Your task to perform on an android device: What's on Reddit this week Image 0: 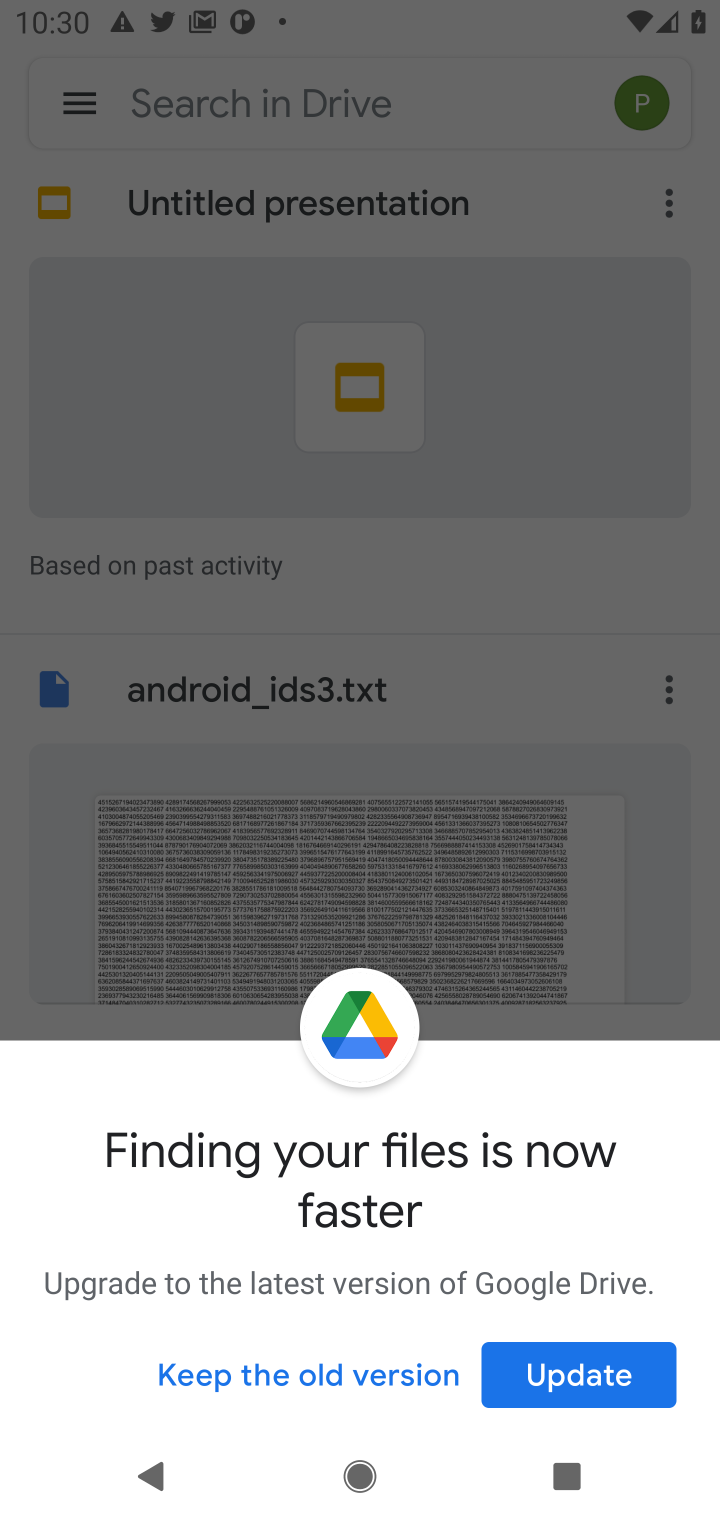
Step 0: press home button
Your task to perform on an android device: What's on Reddit this week Image 1: 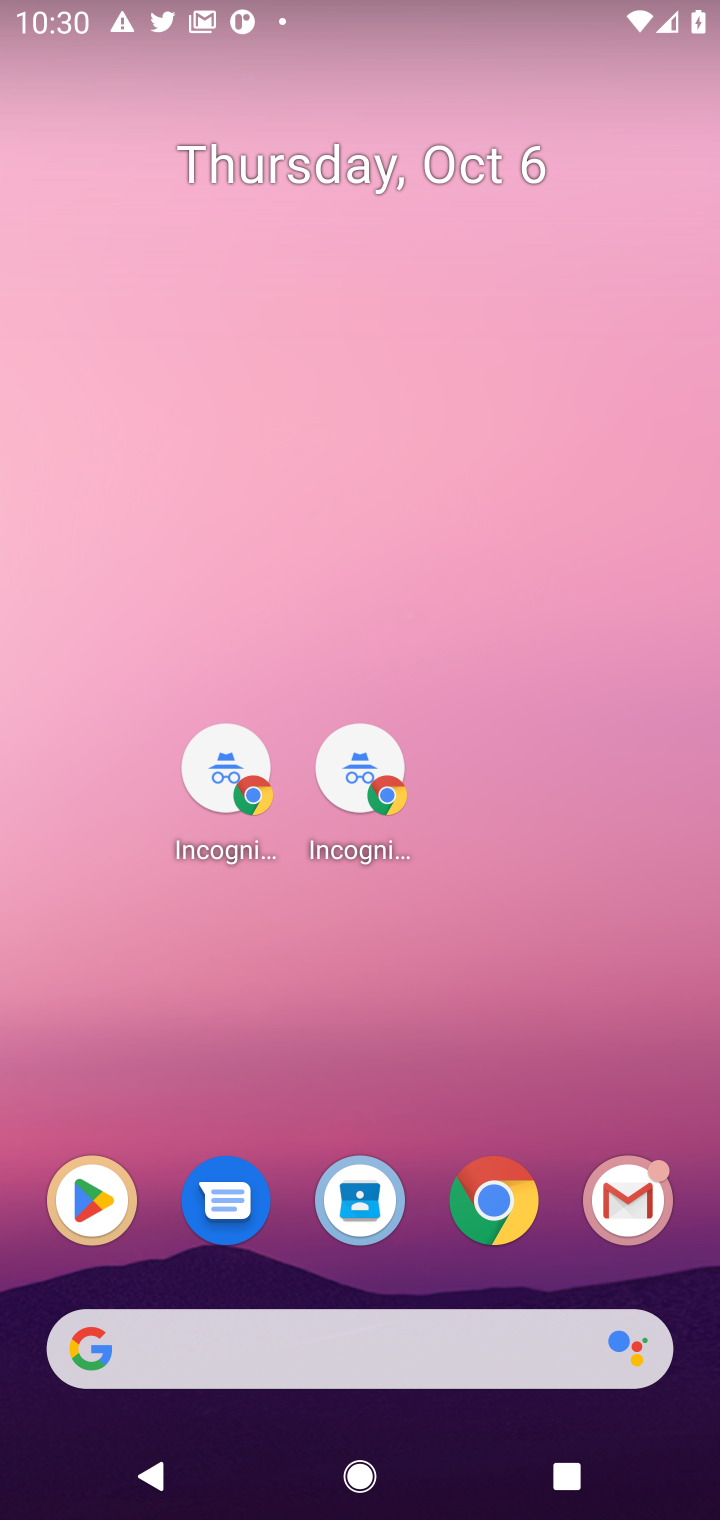
Step 1: click (509, 1194)
Your task to perform on an android device: What's on Reddit this week Image 2: 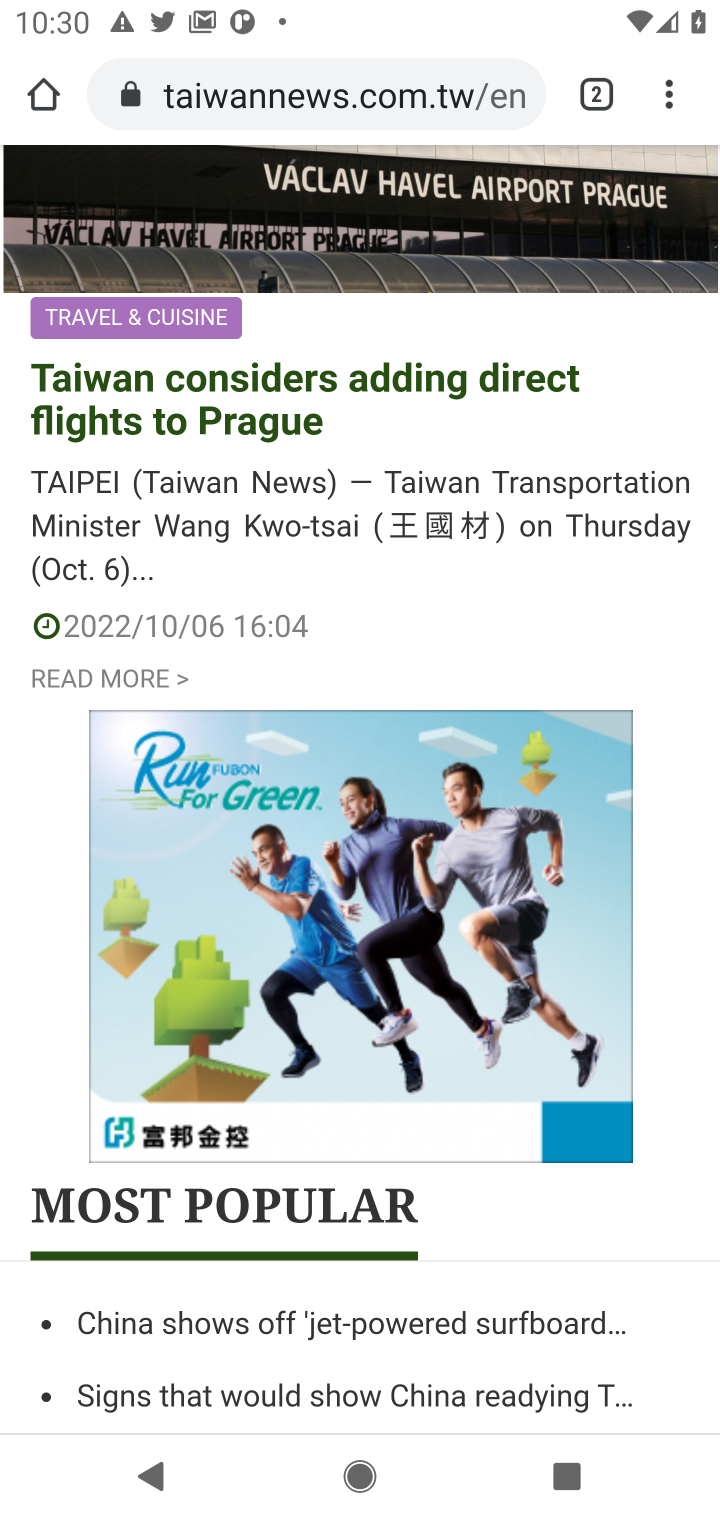
Step 2: click (325, 85)
Your task to perform on an android device: What's on Reddit this week Image 3: 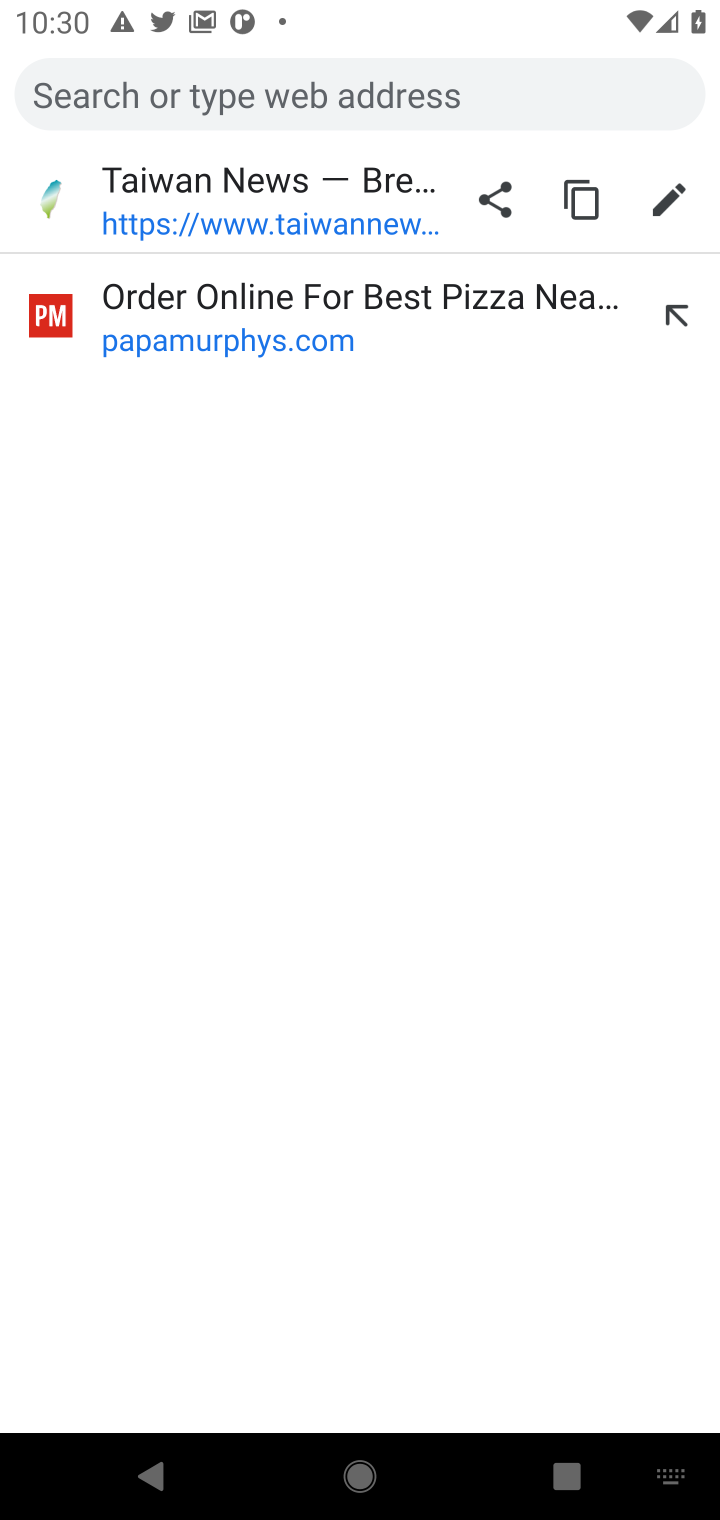
Step 3: type "whats on reddit this week"
Your task to perform on an android device: What's on Reddit this week Image 4: 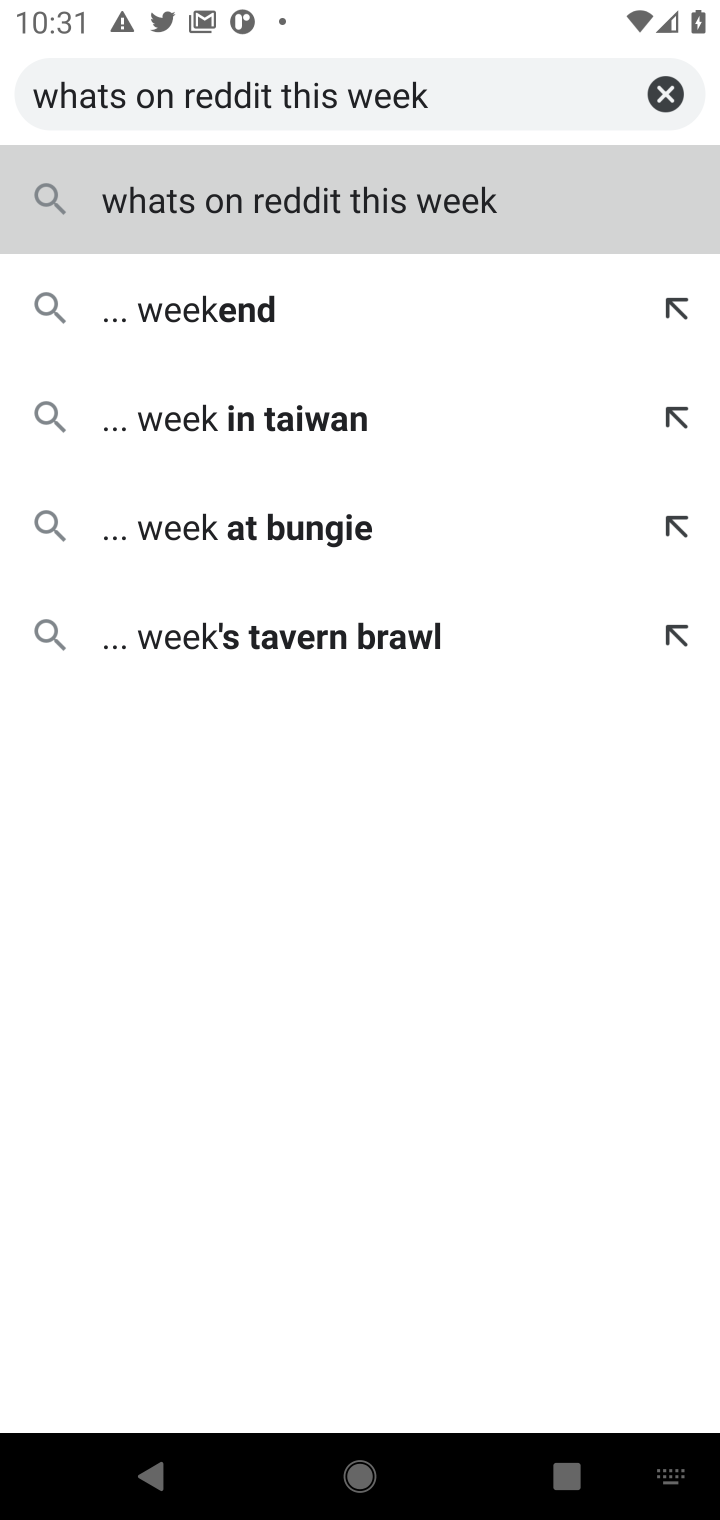
Step 4: type "whats on "
Your task to perform on an android device: What's on Reddit this week Image 5: 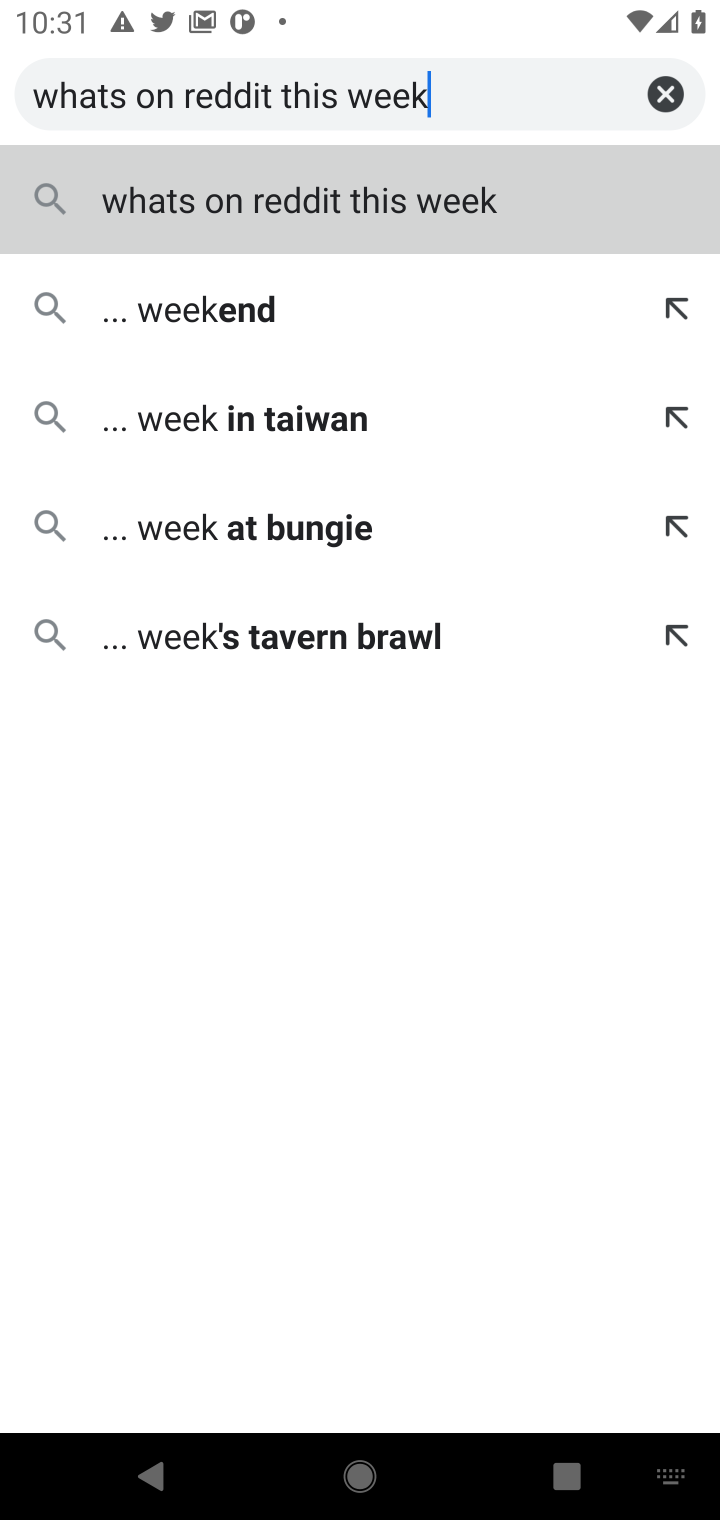
Step 5: click (332, 207)
Your task to perform on an android device: What's on Reddit this week Image 6: 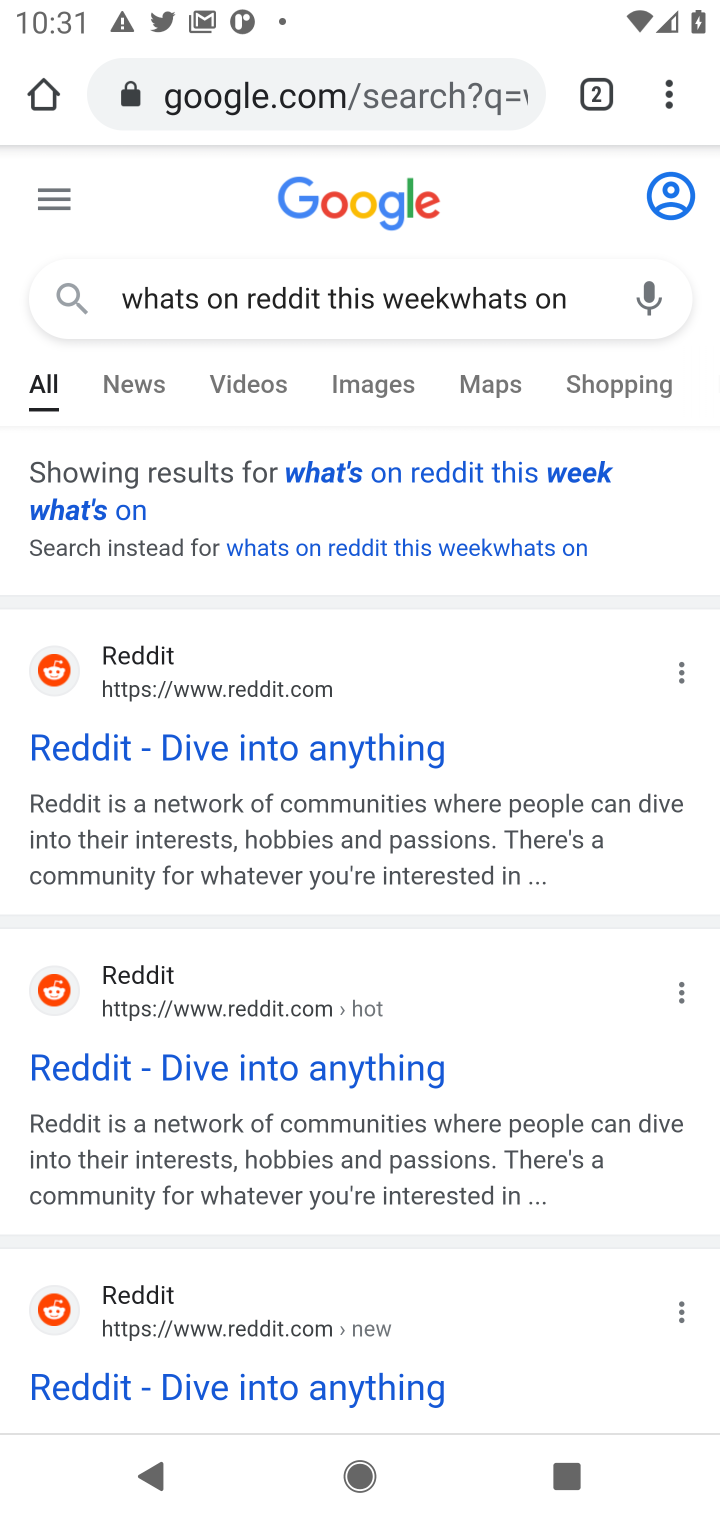
Step 6: click (279, 745)
Your task to perform on an android device: What's on Reddit this week Image 7: 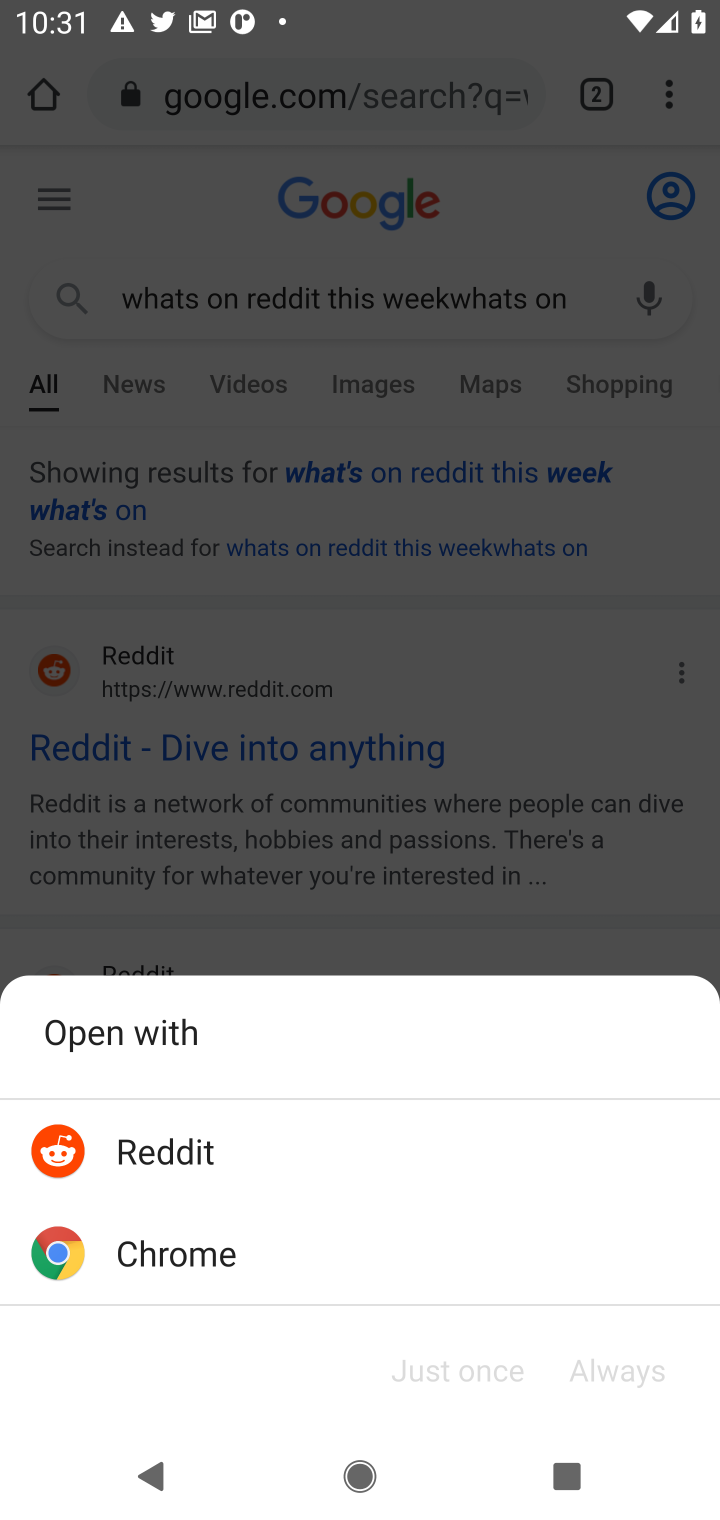
Step 7: drag from (222, 870) to (278, 528)
Your task to perform on an android device: What's on Reddit this week Image 8: 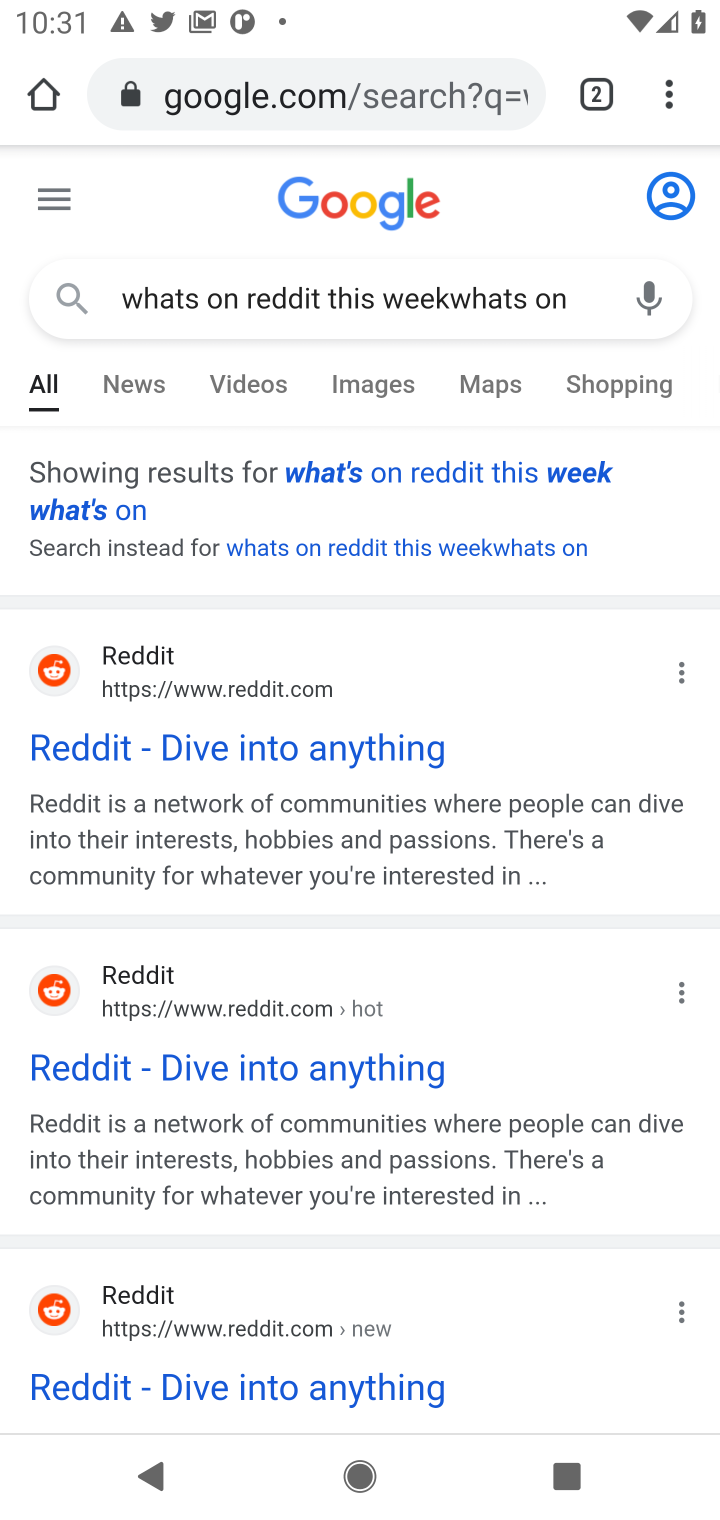
Step 8: click (170, 1061)
Your task to perform on an android device: What's on Reddit this week Image 9: 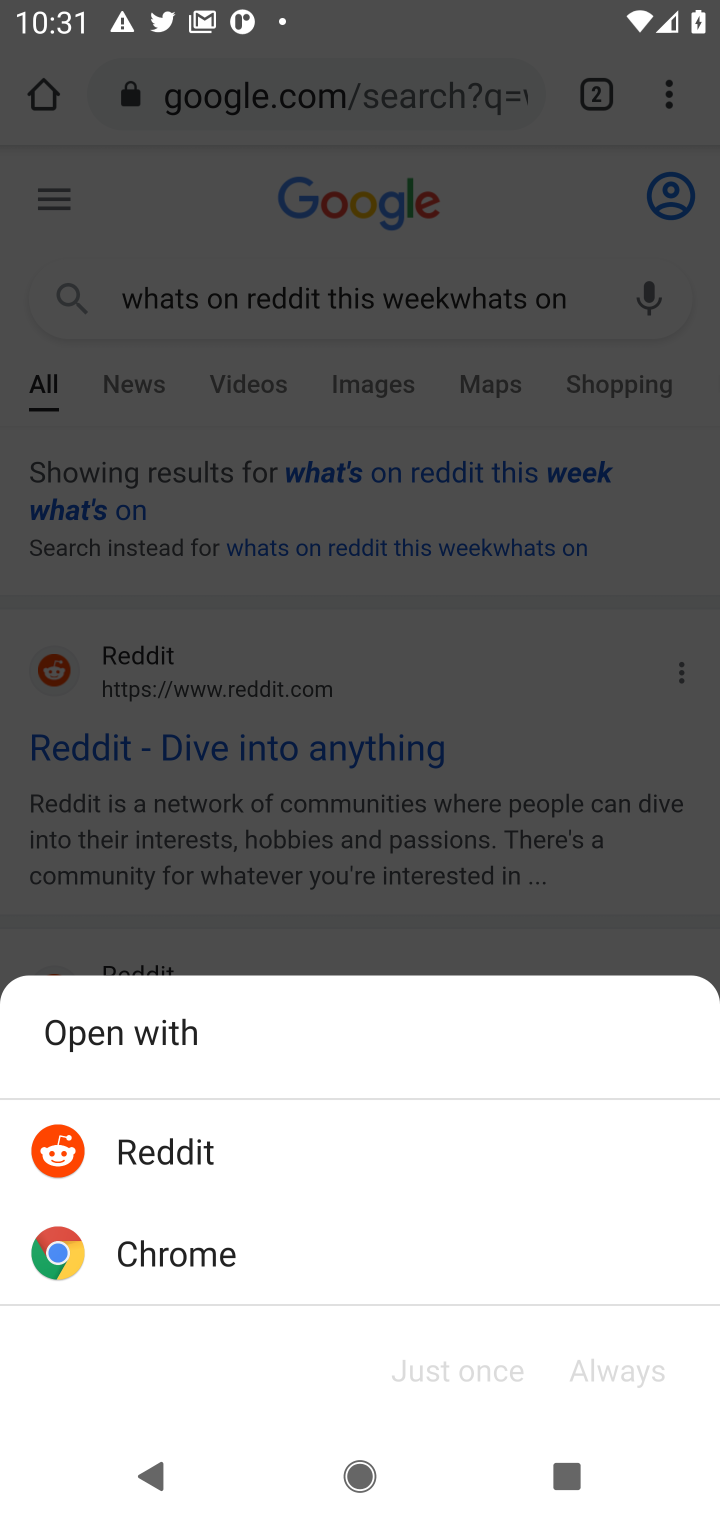
Step 9: click (145, 1147)
Your task to perform on an android device: What's on Reddit this week Image 10: 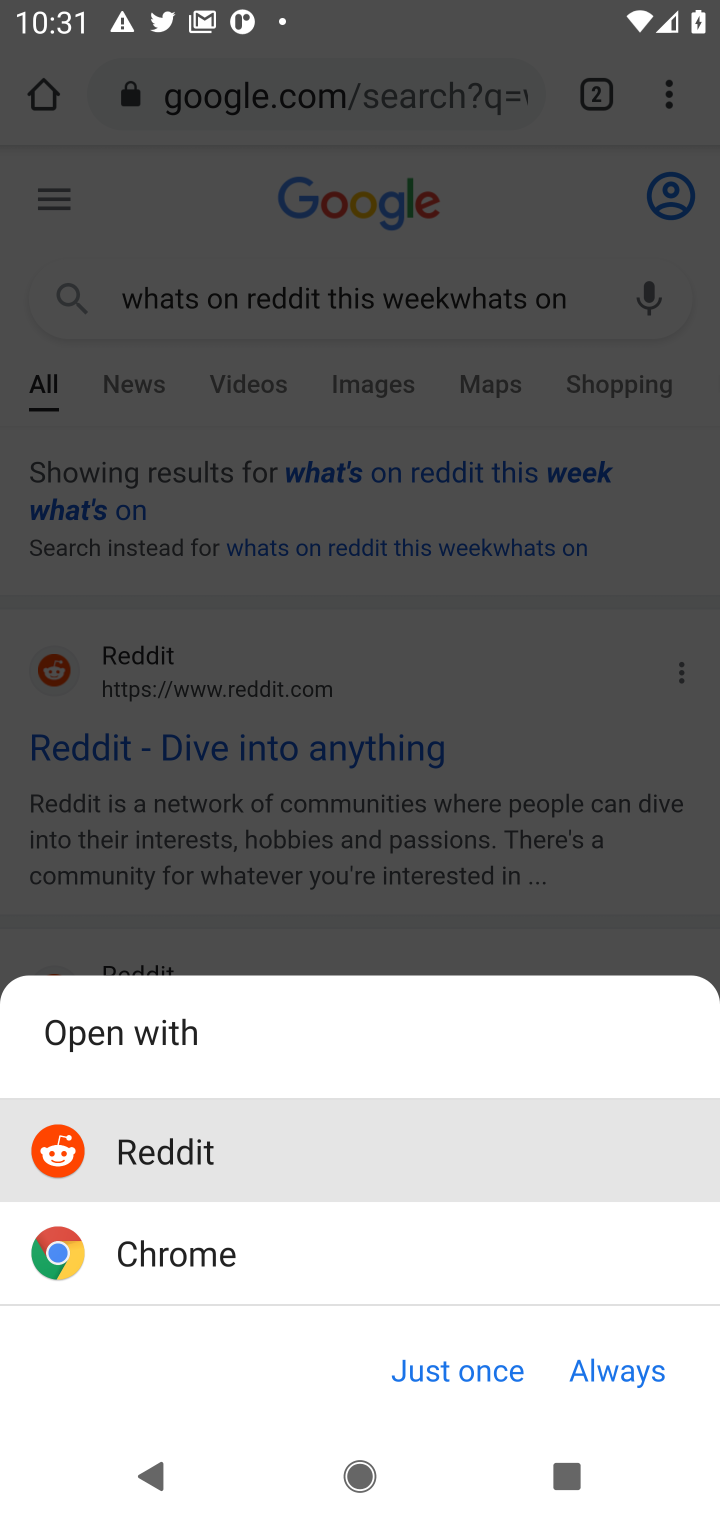
Step 10: click (617, 1376)
Your task to perform on an android device: What's on Reddit this week Image 11: 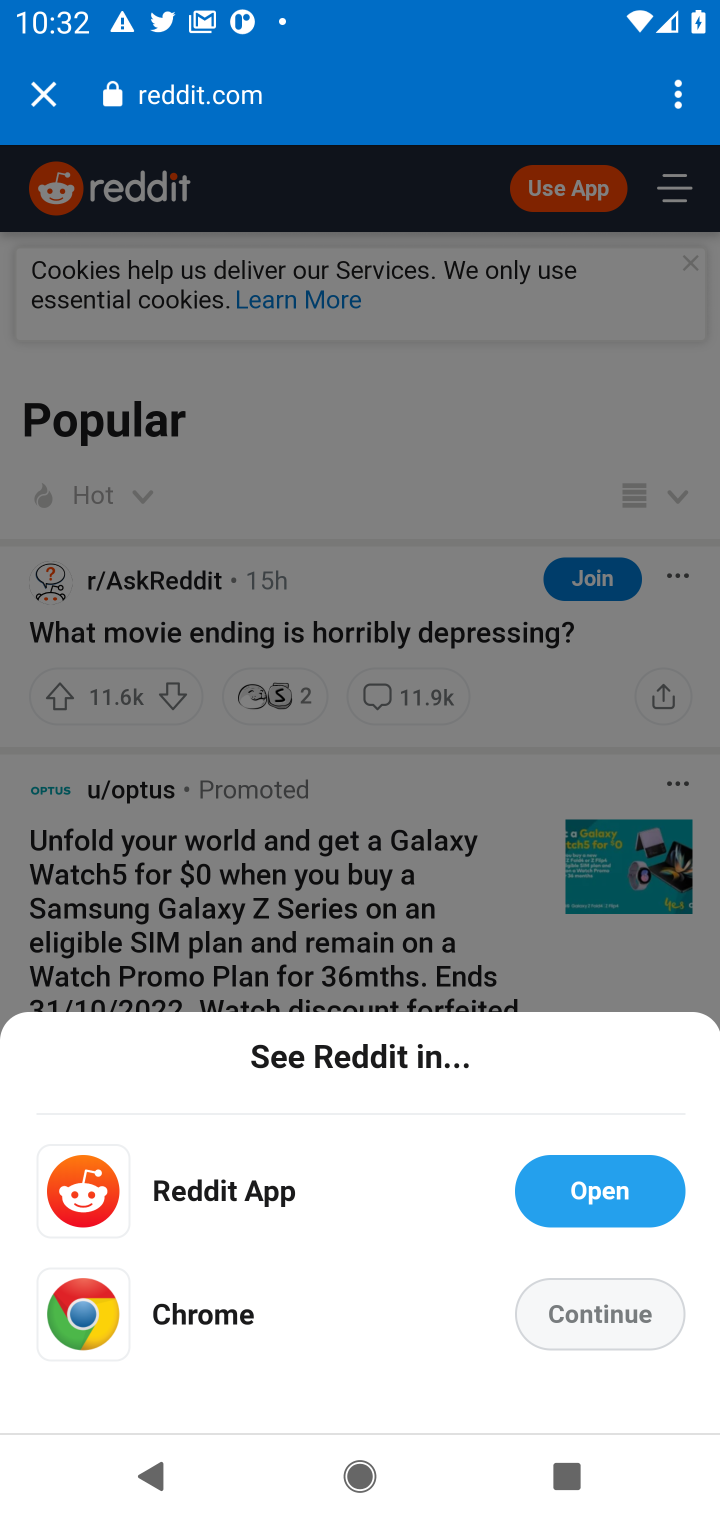
Step 11: drag from (275, 793) to (381, 423)
Your task to perform on an android device: What's on Reddit this week Image 12: 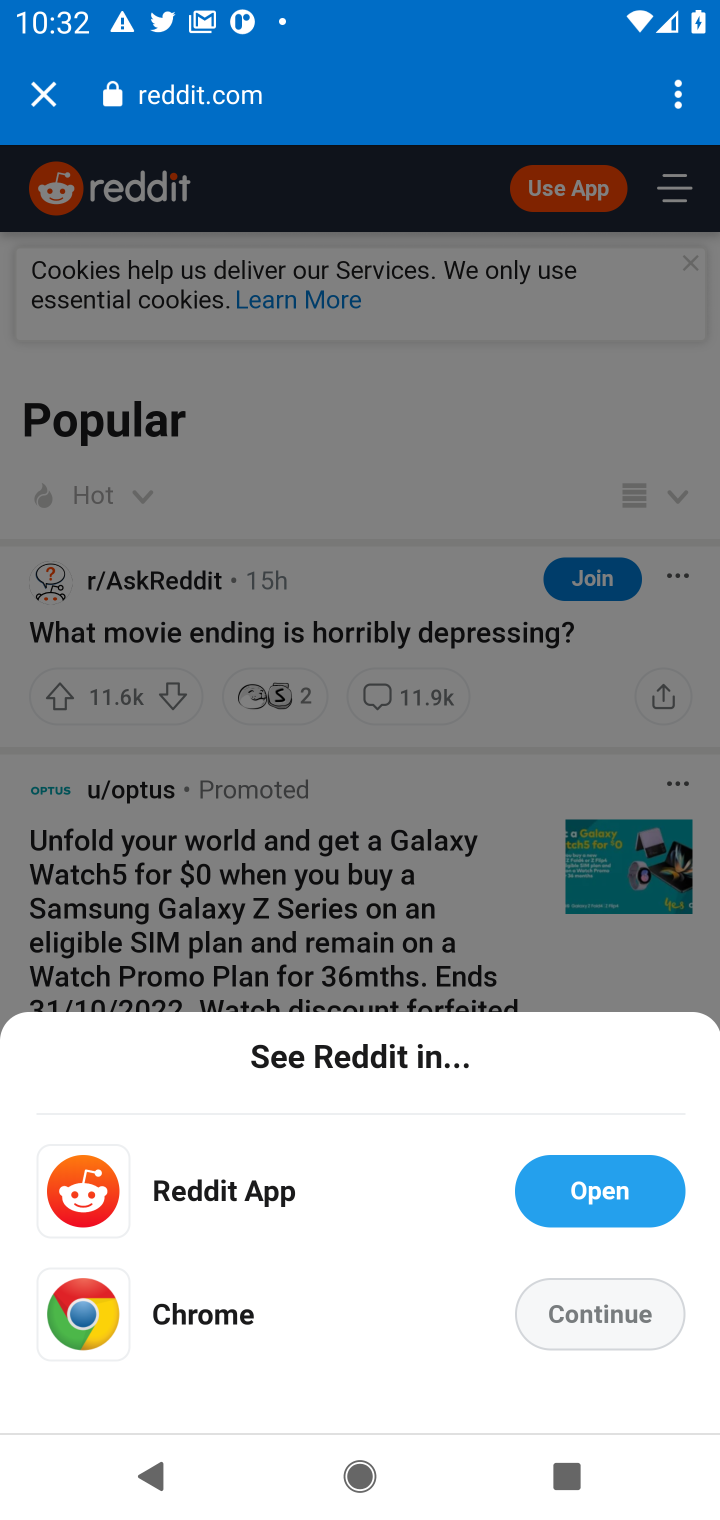
Step 12: drag from (160, 879) to (226, 525)
Your task to perform on an android device: What's on Reddit this week Image 13: 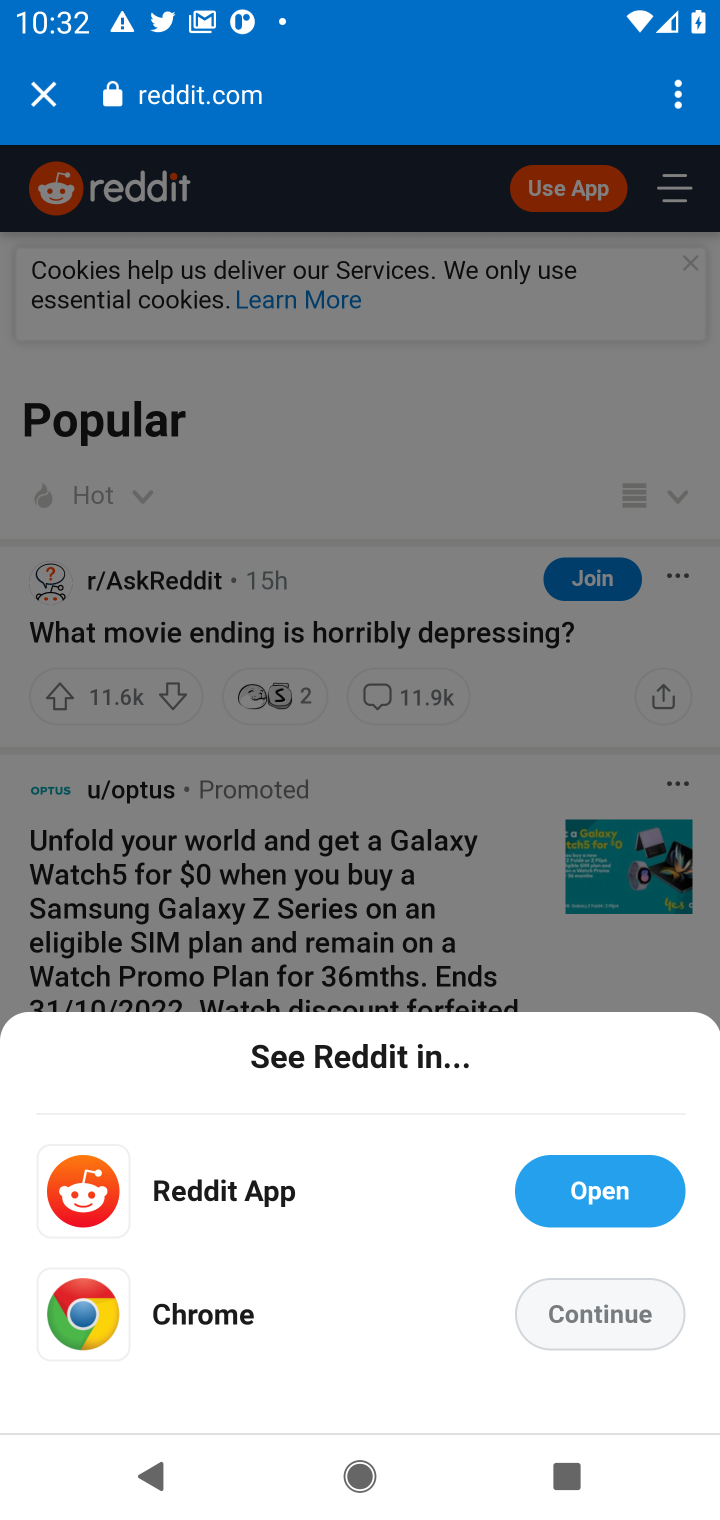
Step 13: drag from (185, 915) to (326, 564)
Your task to perform on an android device: What's on Reddit this week Image 14: 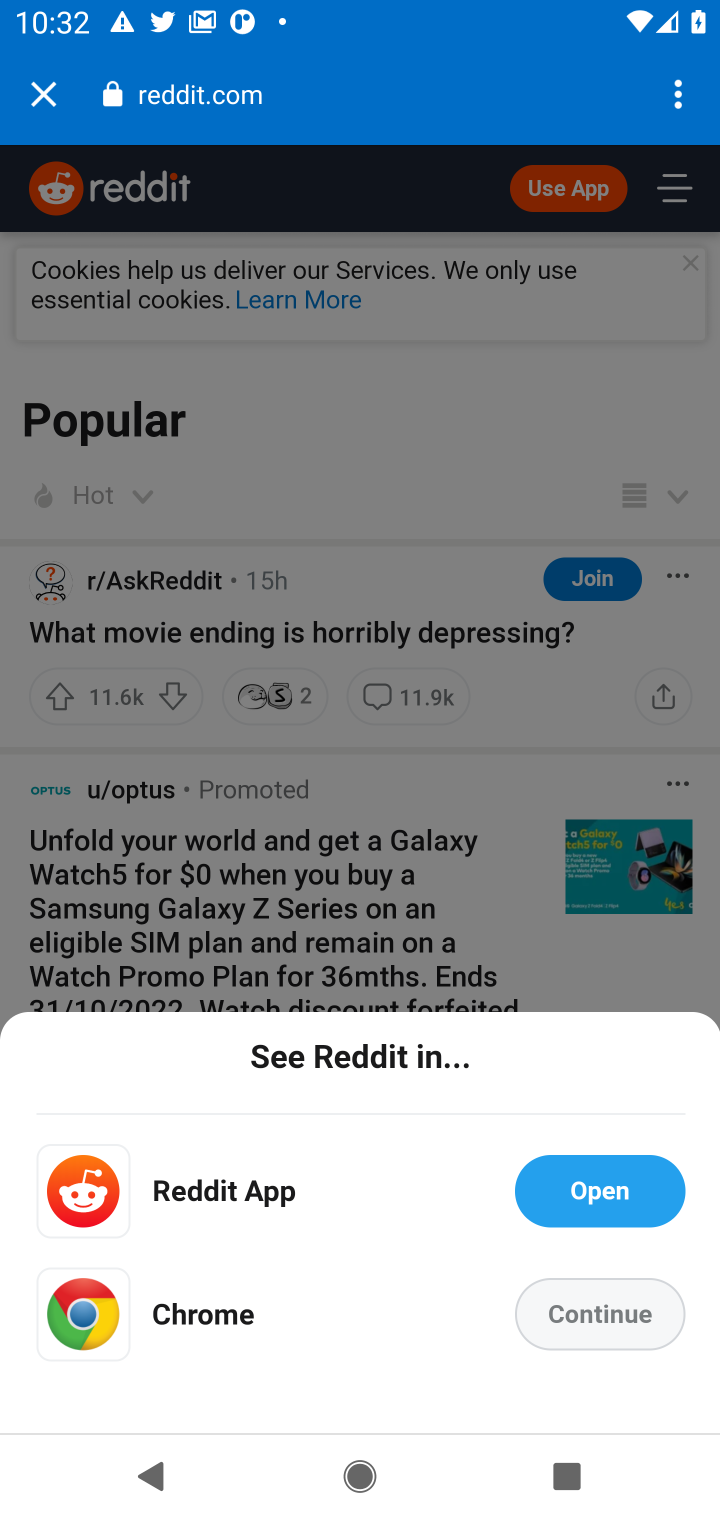
Step 14: drag from (300, 910) to (279, 573)
Your task to perform on an android device: What's on Reddit this week Image 15: 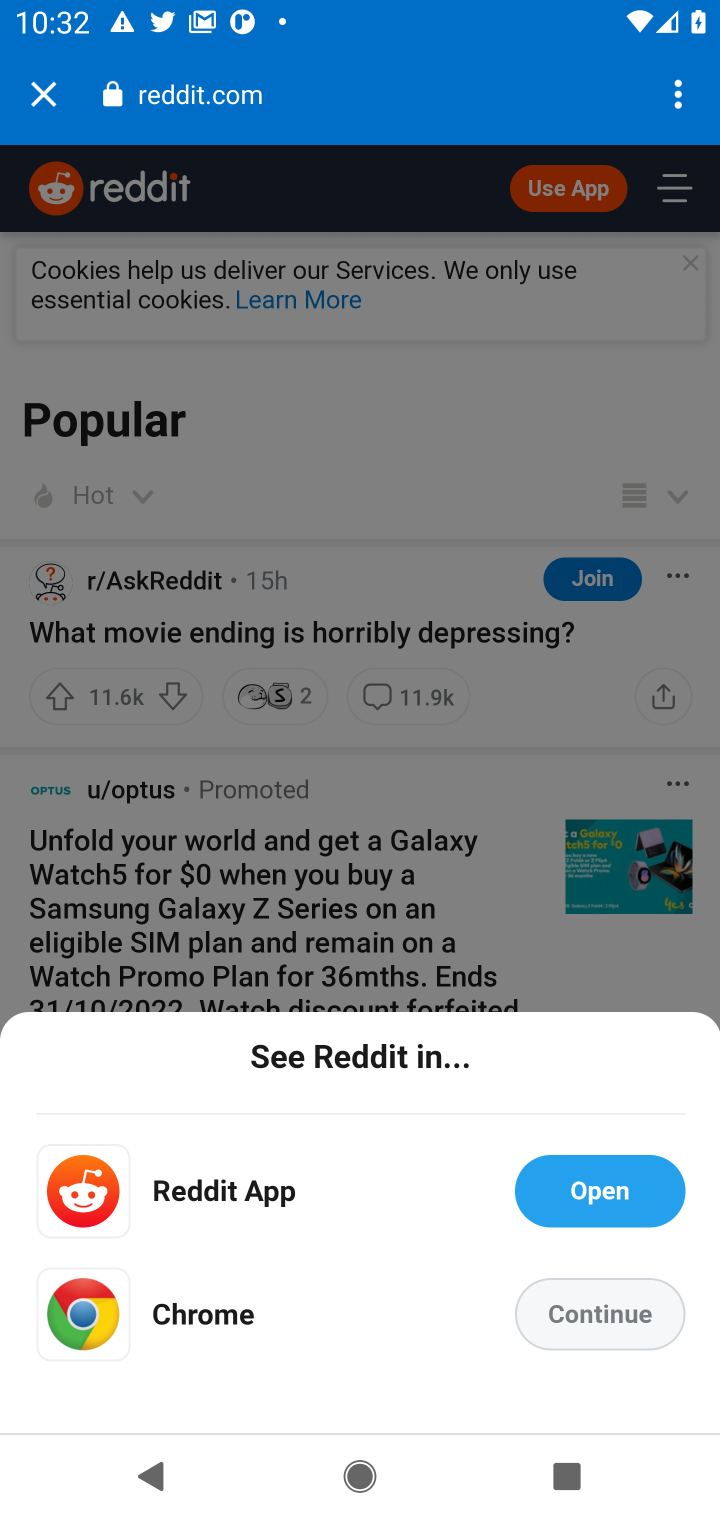
Step 15: drag from (125, 881) to (352, 367)
Your task to perform on an android device: What's on Reddit this week Image 16: 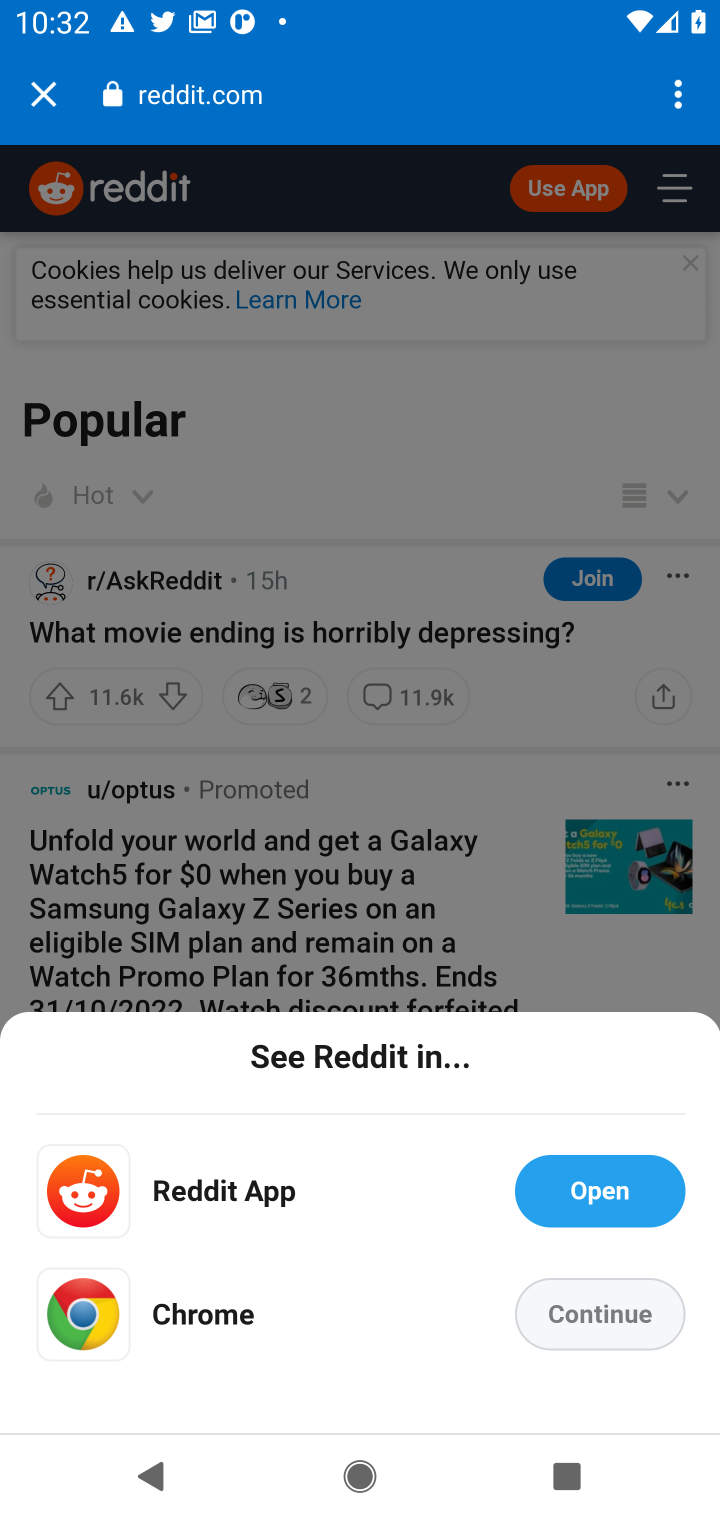
Step 16: drag from (281, 989) to (449, 272)
Your task to perform on an android device: What's on Reddit this week Image 17: 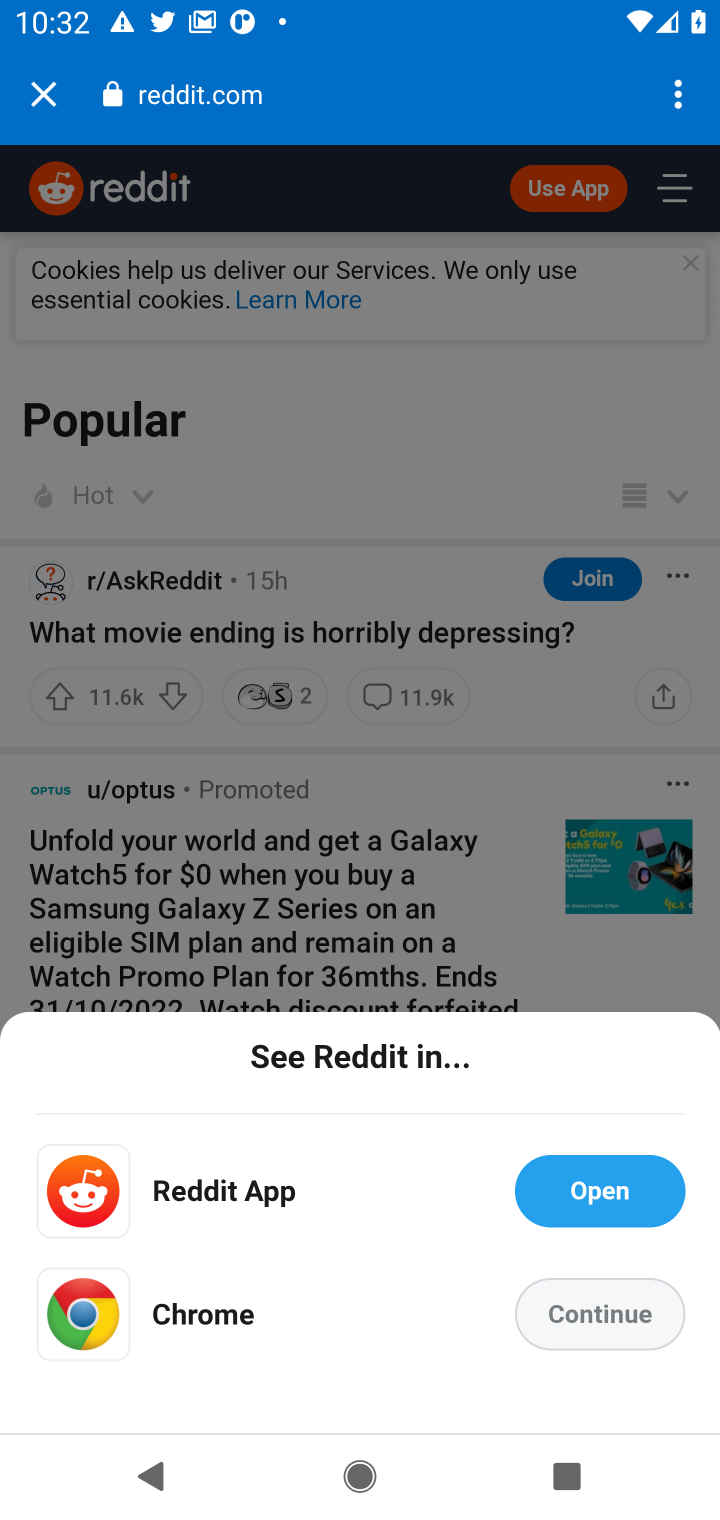
Step 17: drag from (292, 977) to (435, 547)
Your task to perform on an android device: What's on Reddit this week Image 18: 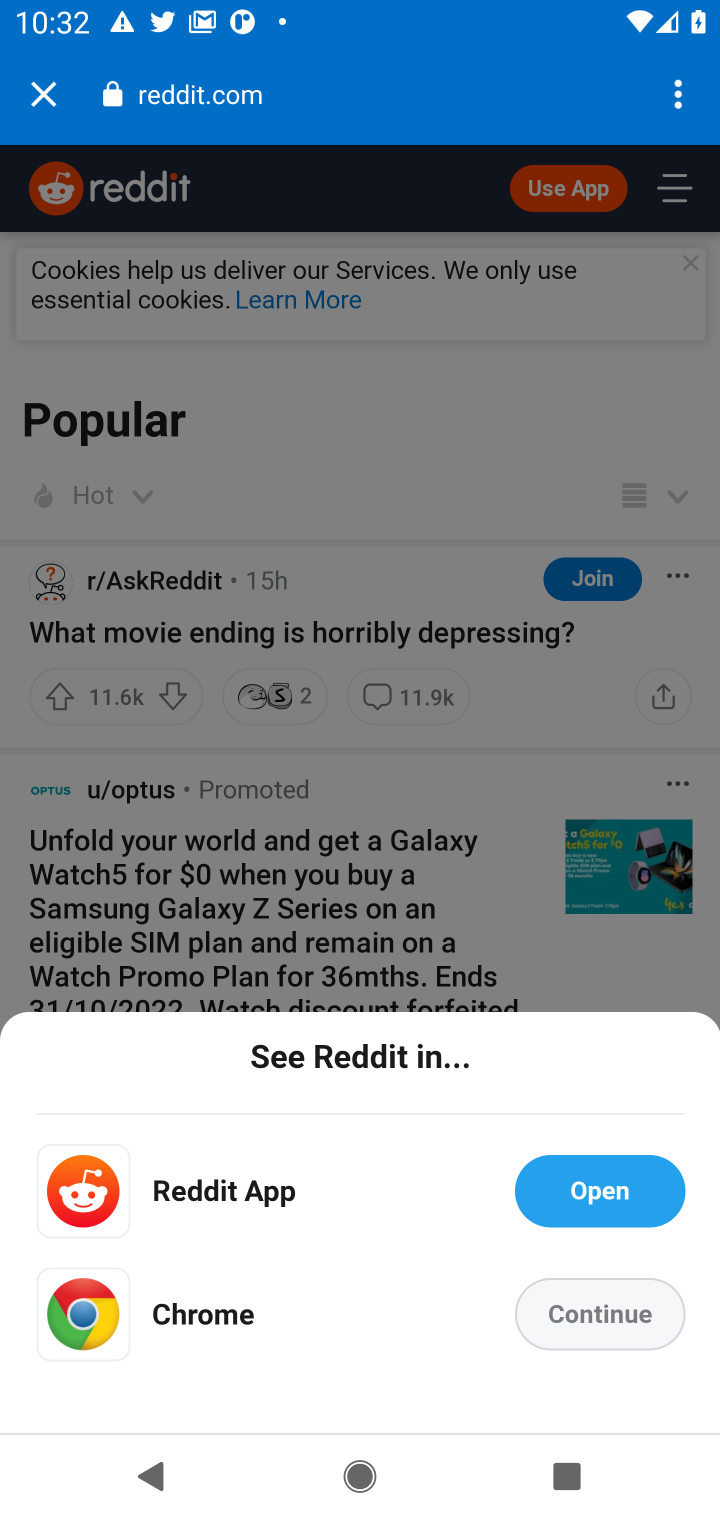
Step 18: drag from (249, 899) to (398, 461)
Your task to perform on an android device: What's on Reddit this week Image 19: 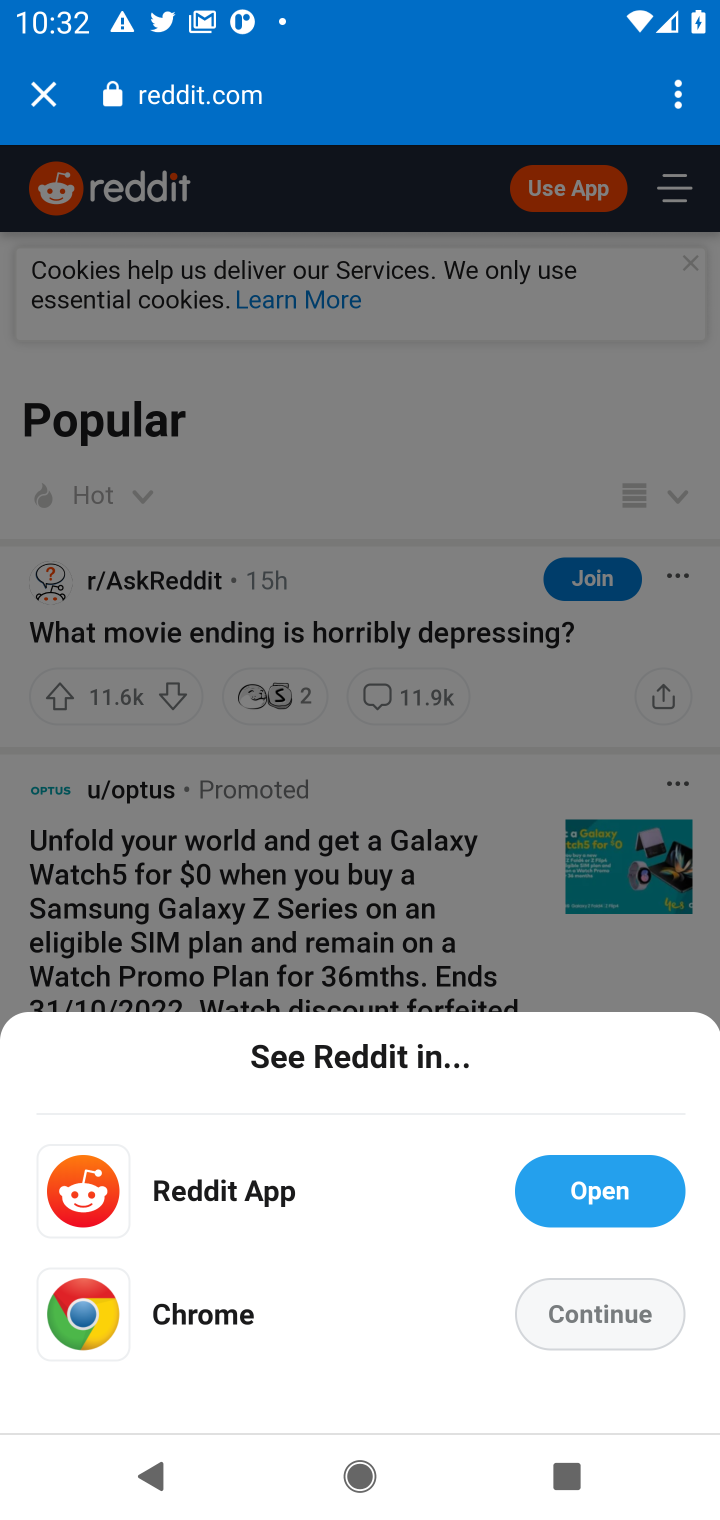
Step 19: drag from (415, 302) to (400, 1119)
Your task to perform on an android device: What's on Reddit this week Image 20: 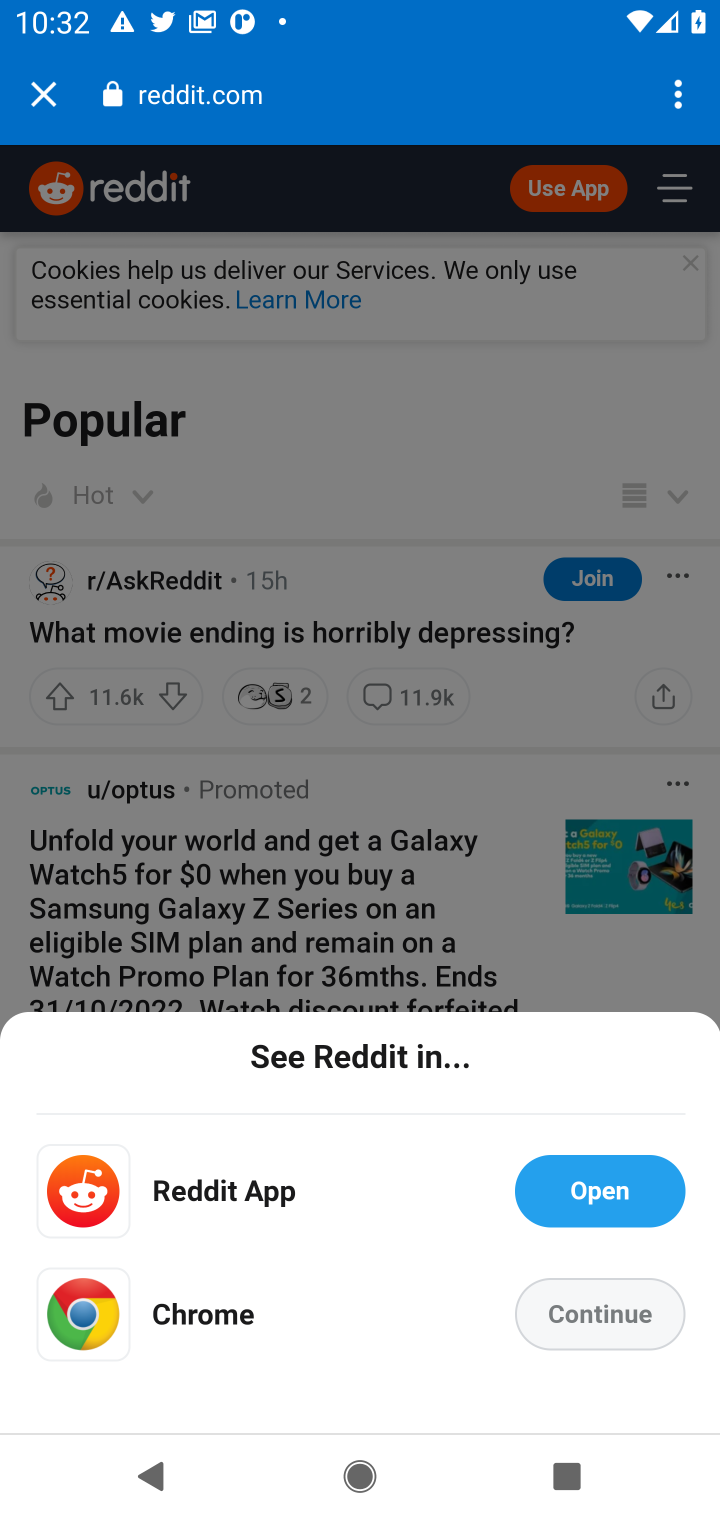
Step 20: drag from (427, 927) to (483, 728)
Your task to perform on an android device: What's on Reddit this week Image 21: 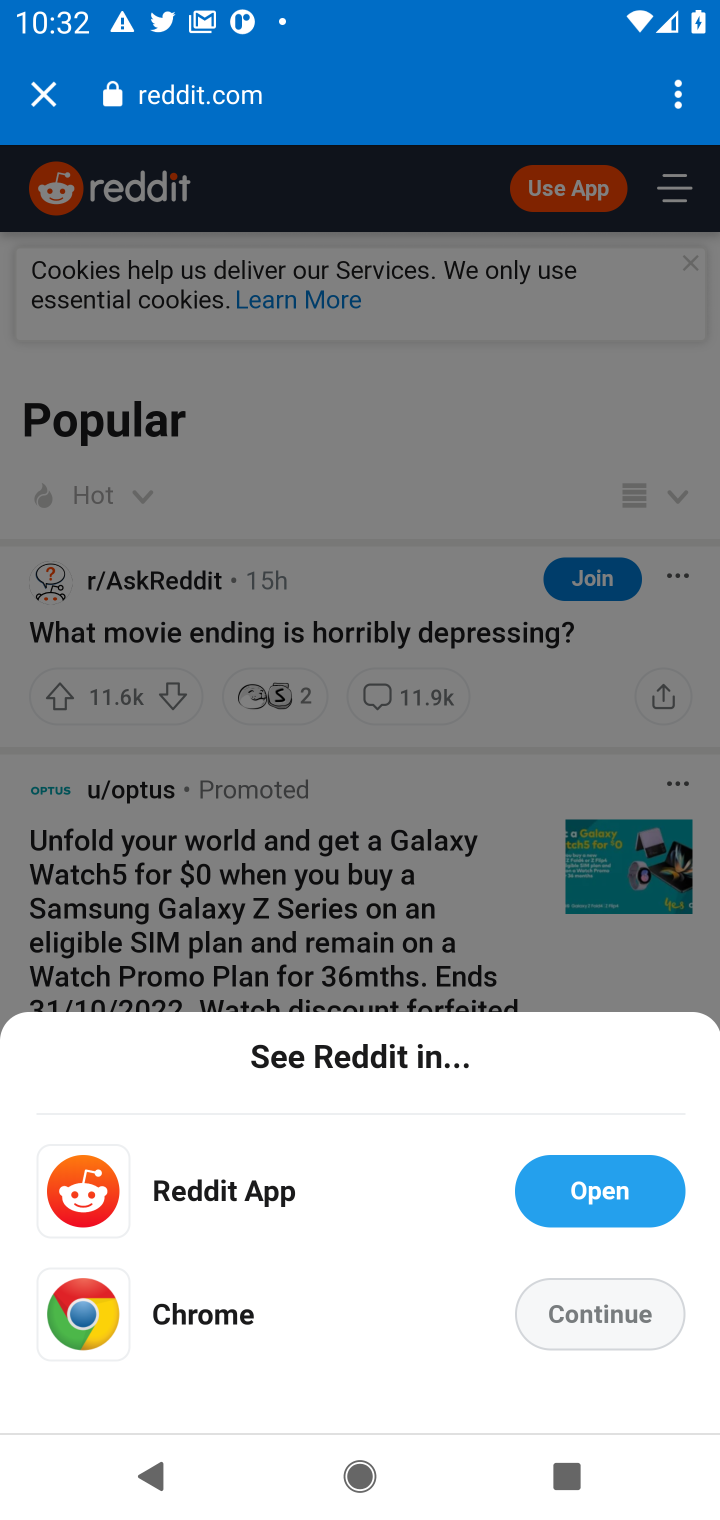
Step 21: click (642, 1185)
Your task to perform on an android device: What's on Reddit this week Image 22: 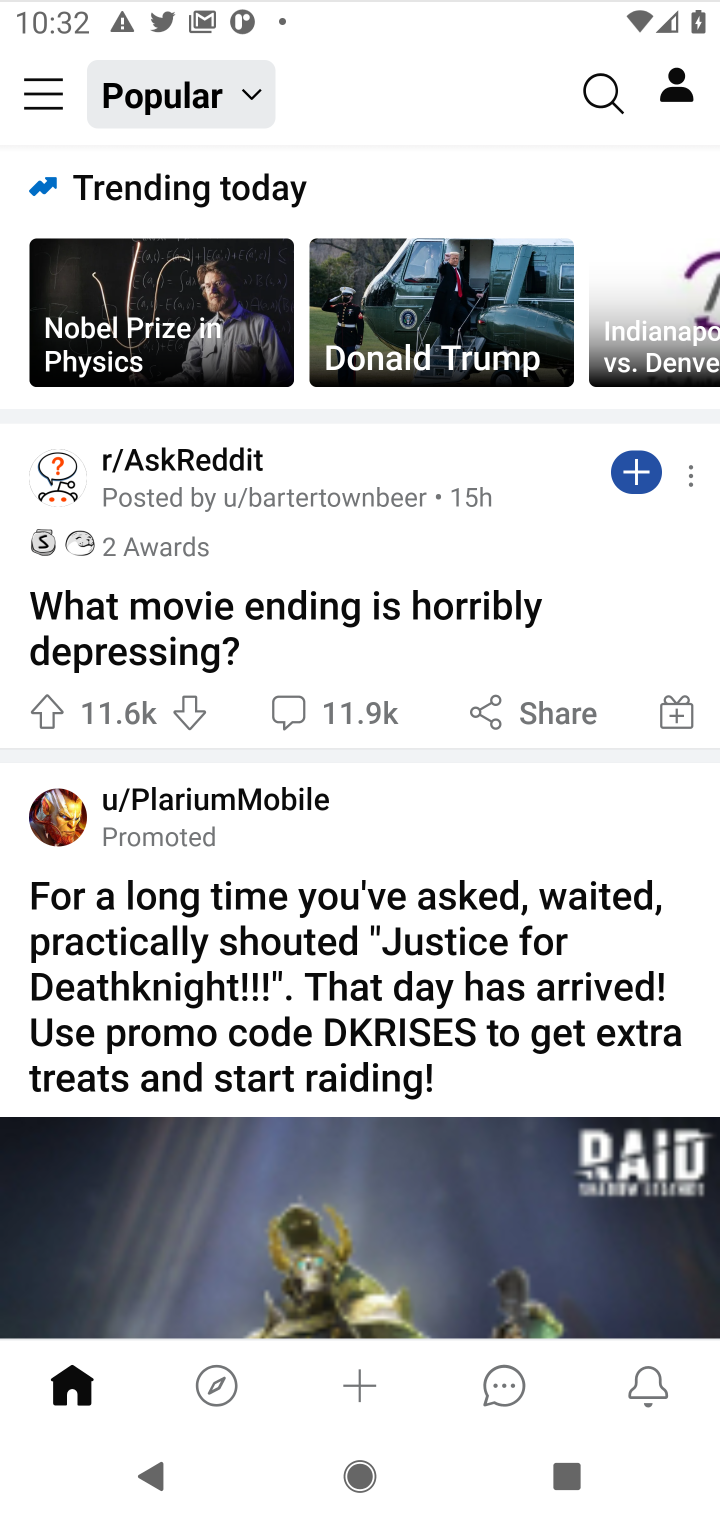
Step 22: task complete